Your task to perform on an android device: Search for the best rated 3d printer on Amazon. Image 0: 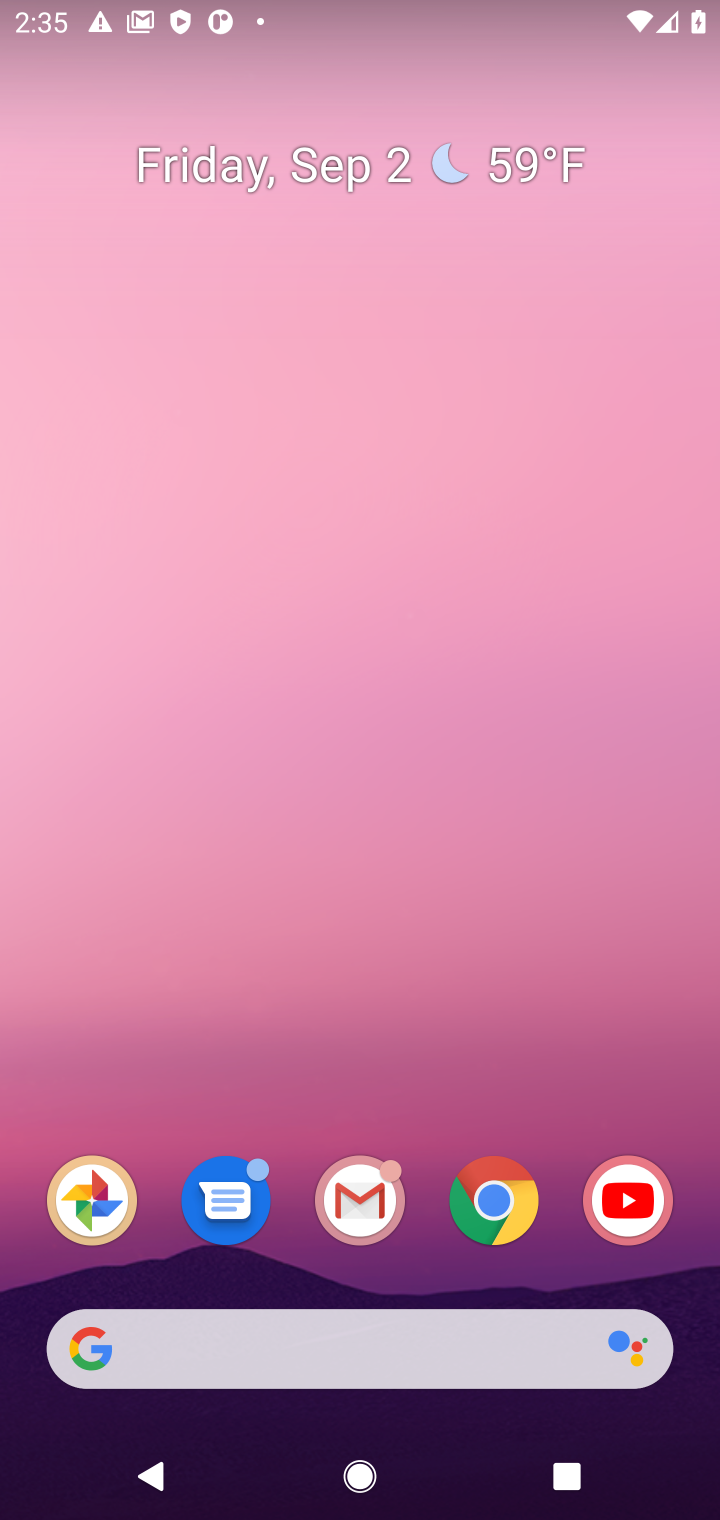
Step 0: click (716, 1274)
Your task to perform on an android device: Search for the best rated 3d printer on Amazon. Image 1: 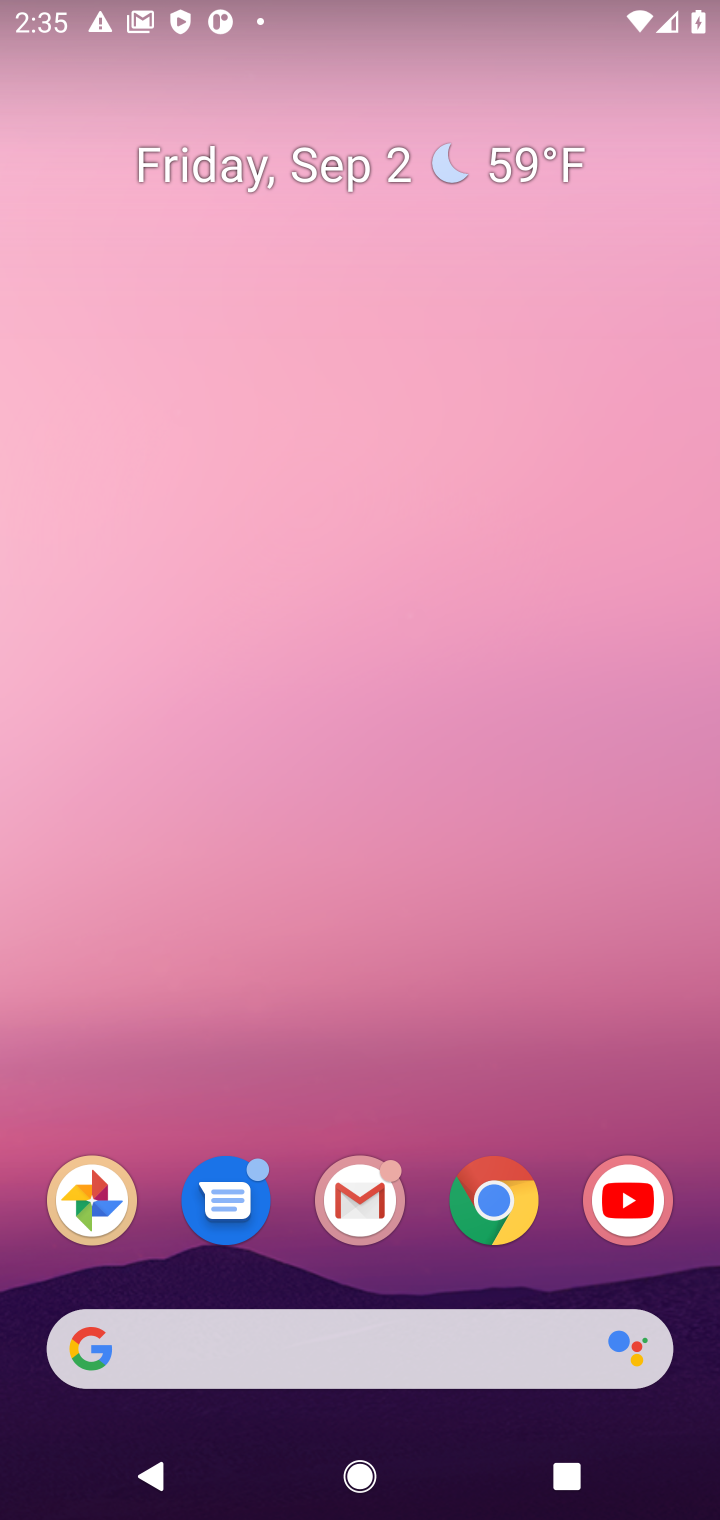
Step 1: click (499, 1191)
Your task to perform on an android device: Search for the best rated 3d printer on Amazon. Image 2: 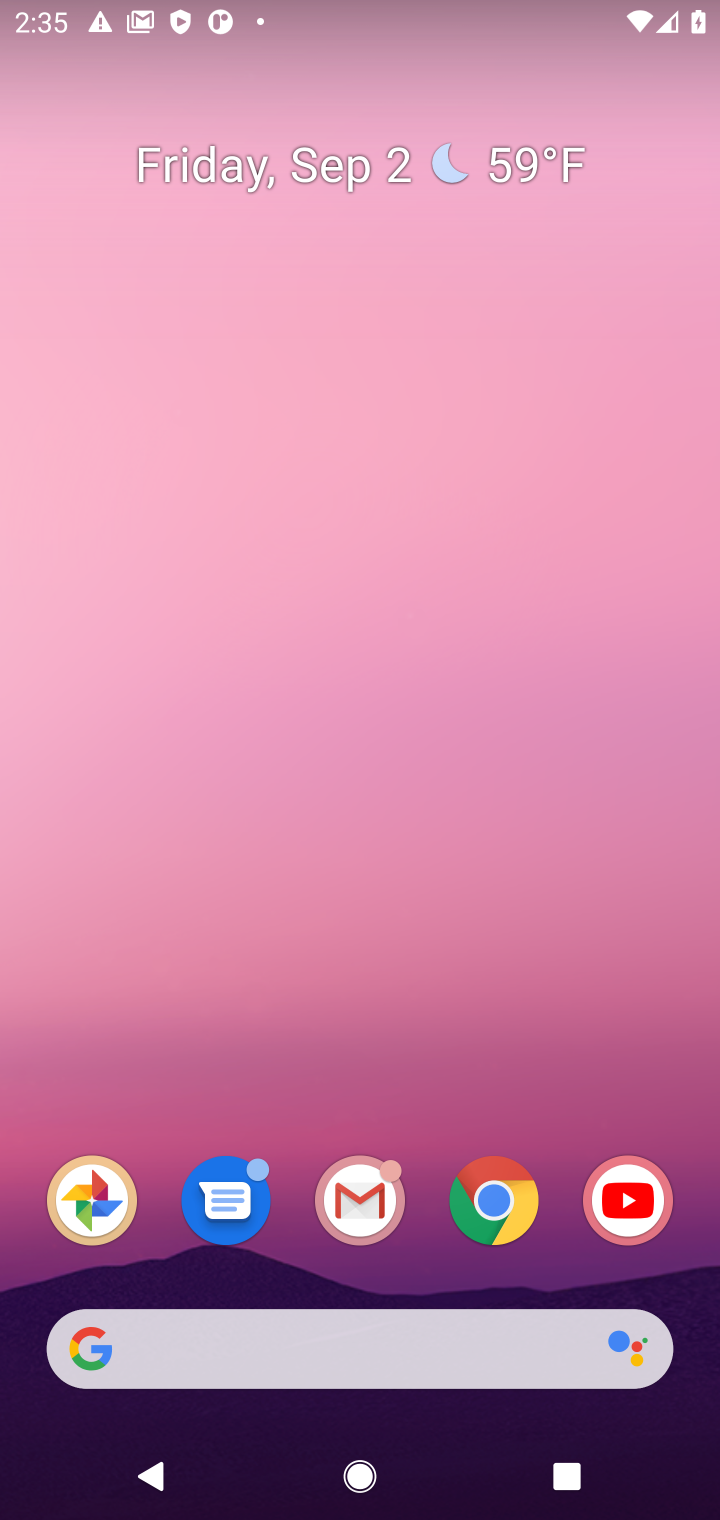
Step 2: click (499, 1193)
Your task to perform on an android device: Search for the best rated 3d printer on Amazon. Image 3: 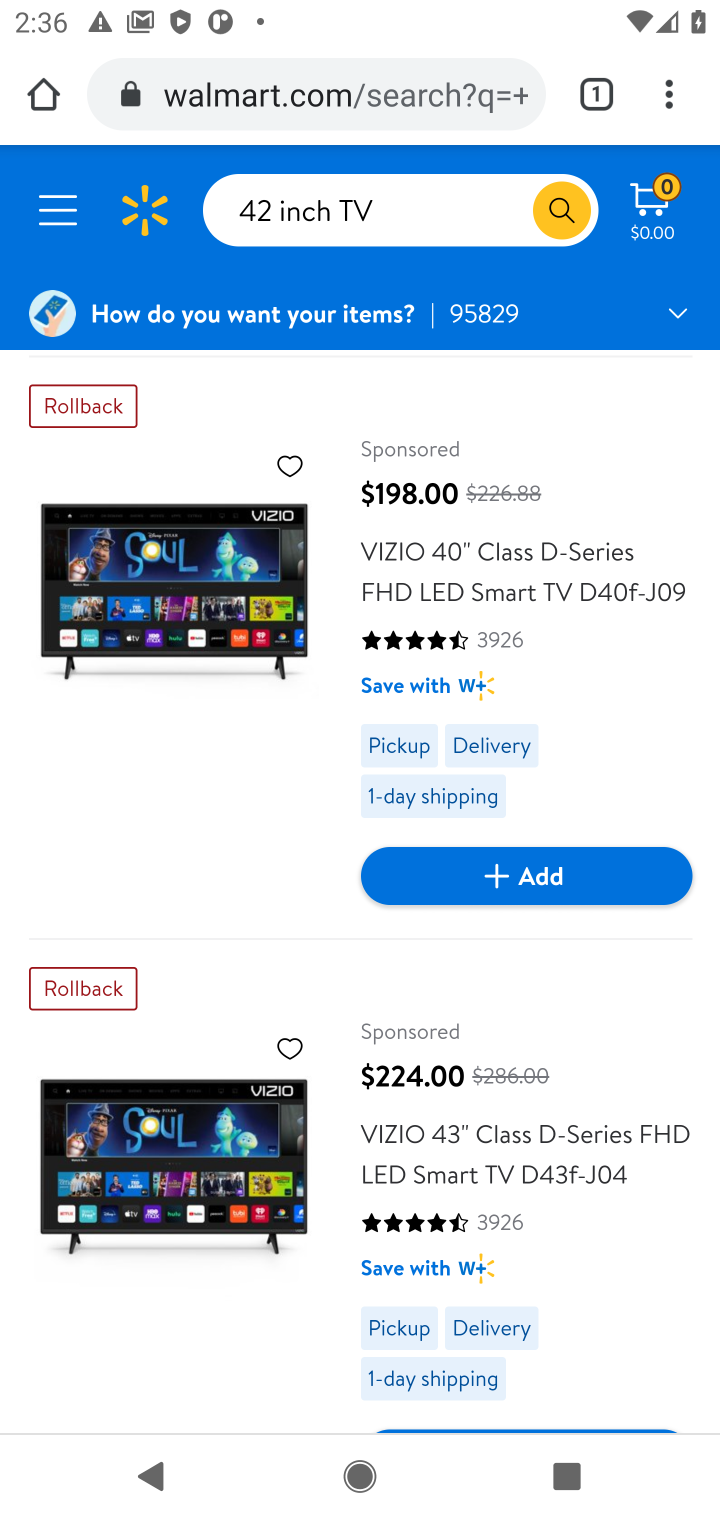
Step 3: click (293, 75)
Your task to perform on an android device: Search for the best rated 3d printer on Amazon. Image 4: 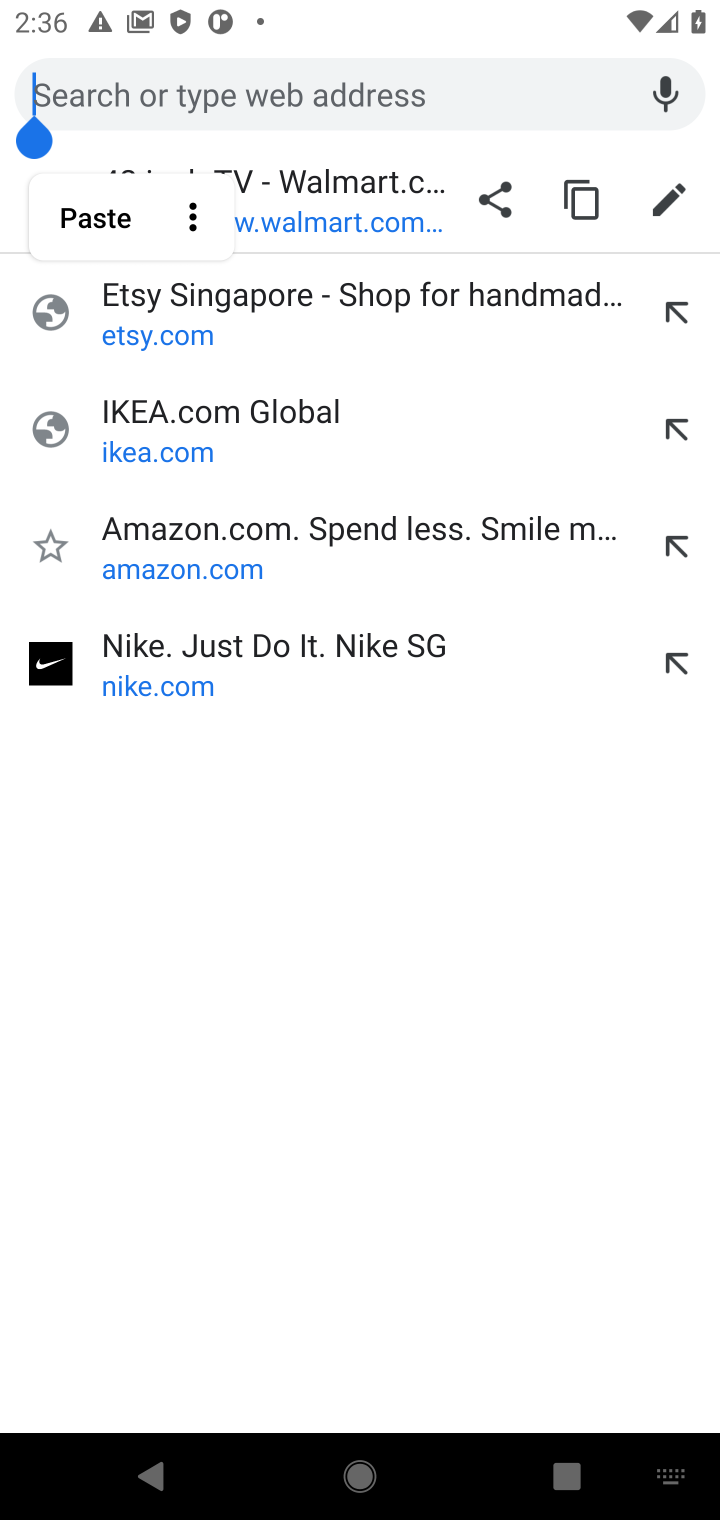
Step 4: click (364, 87)
Your task to perform on an android device: Search for the best rated 3d printer on Amazon. Image 5: 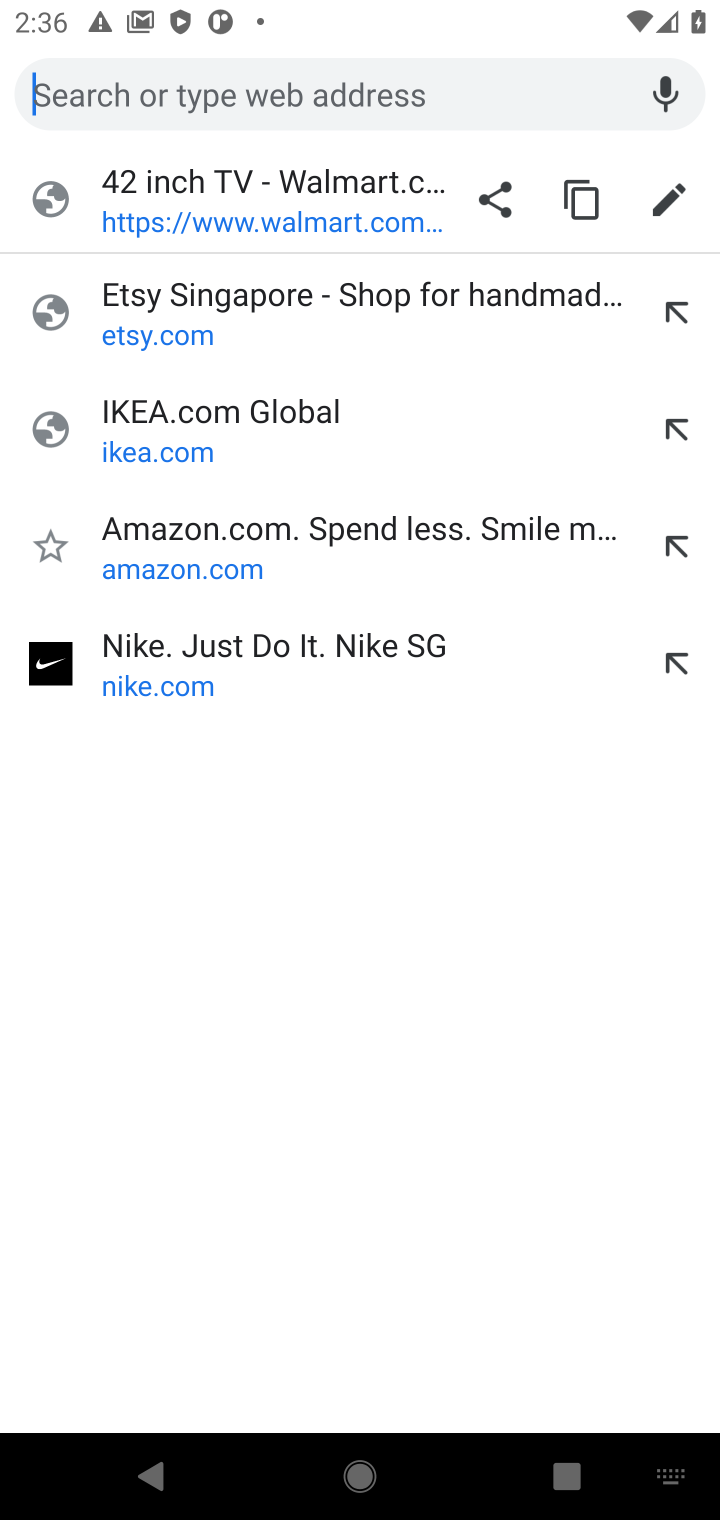
Step 5: type "Amazon"
Your task to perform on an android device: Search for the best rated 3d printer on Amazon. Image 6: 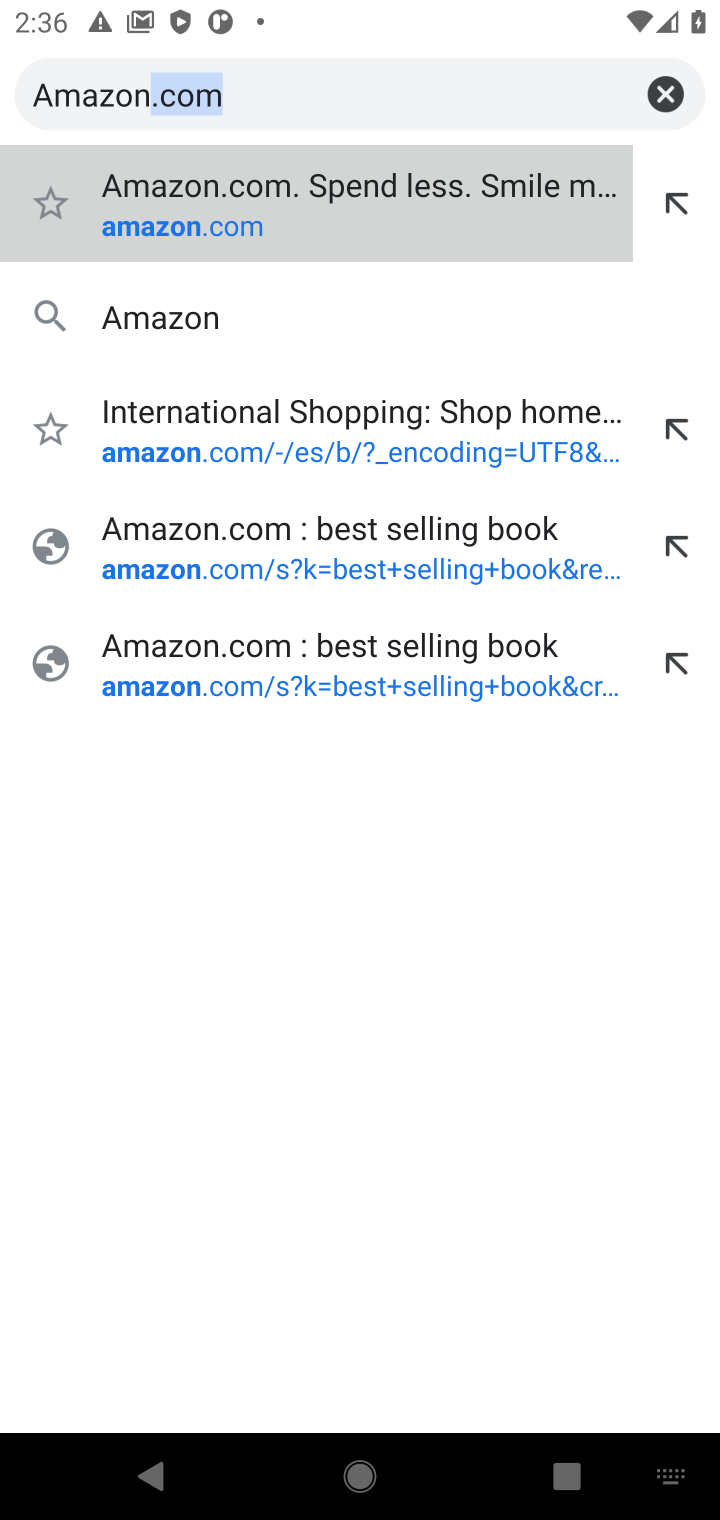
Step 6: press enter
Your task to perform on an android device: Search for the best rated 3d printer on Amazon. Image 7: 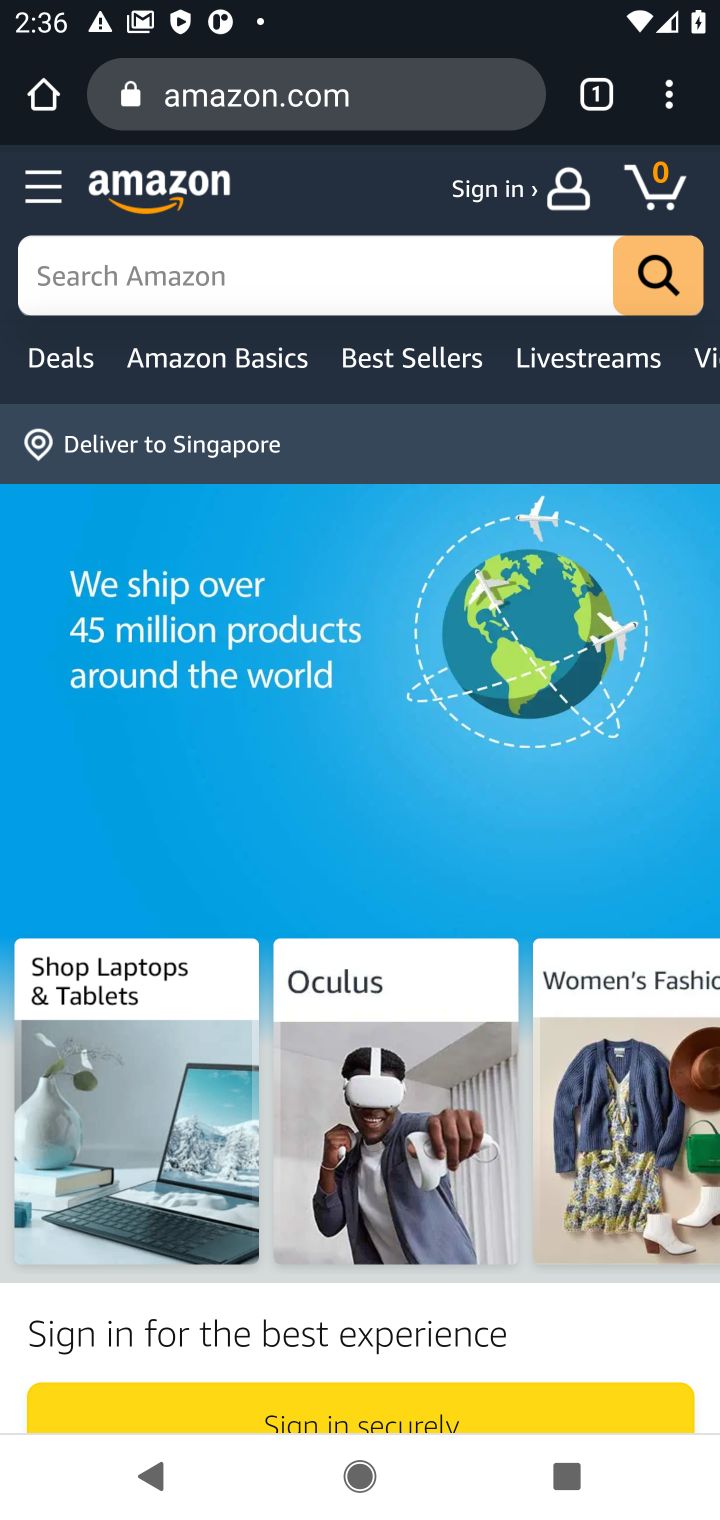
Step 7: click (361, 282)
Your task to perform on an android device: Search for the best rated 3d printer on Amazon. Image 8: 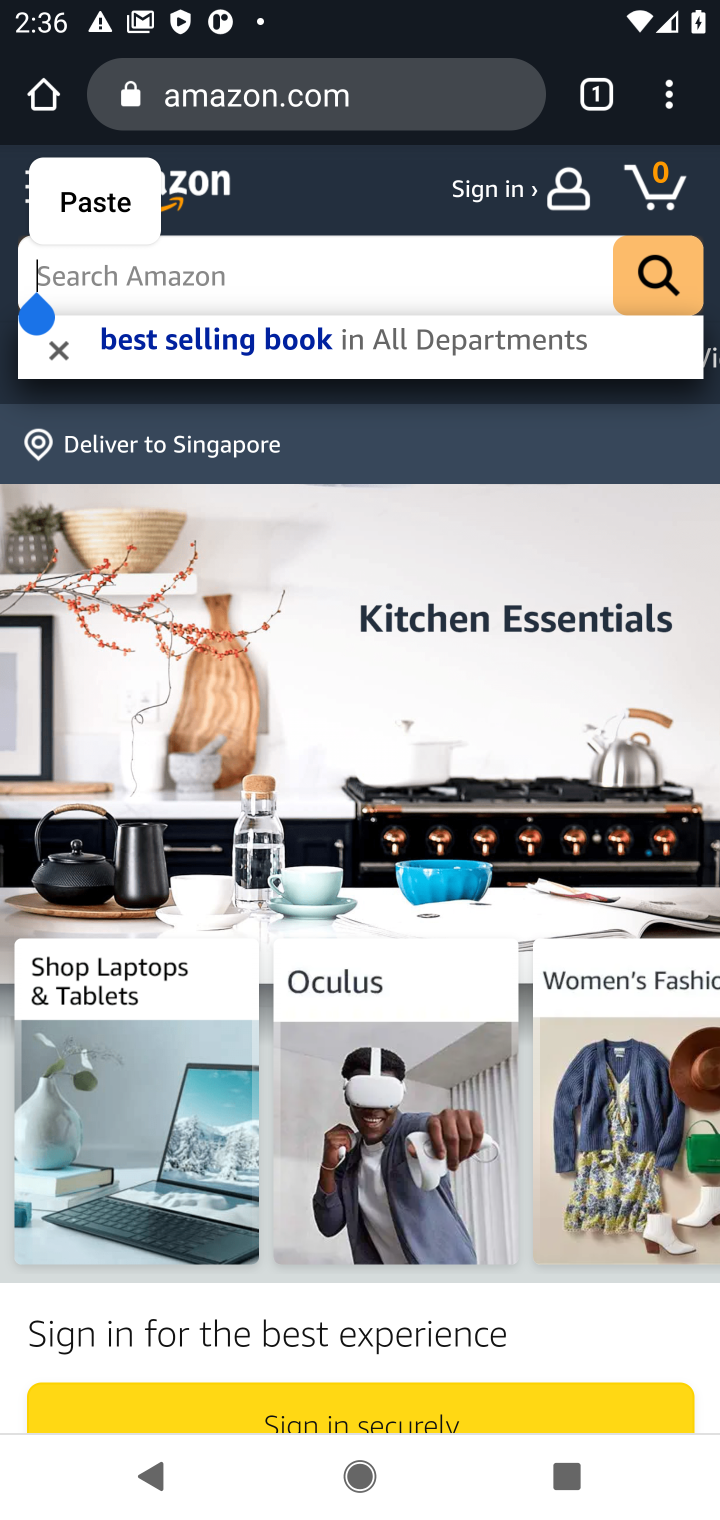
Step 8: click (361, 280)
Your task to perform on an android device: Search for the best rated 3d printer on Amazon. Image 9: 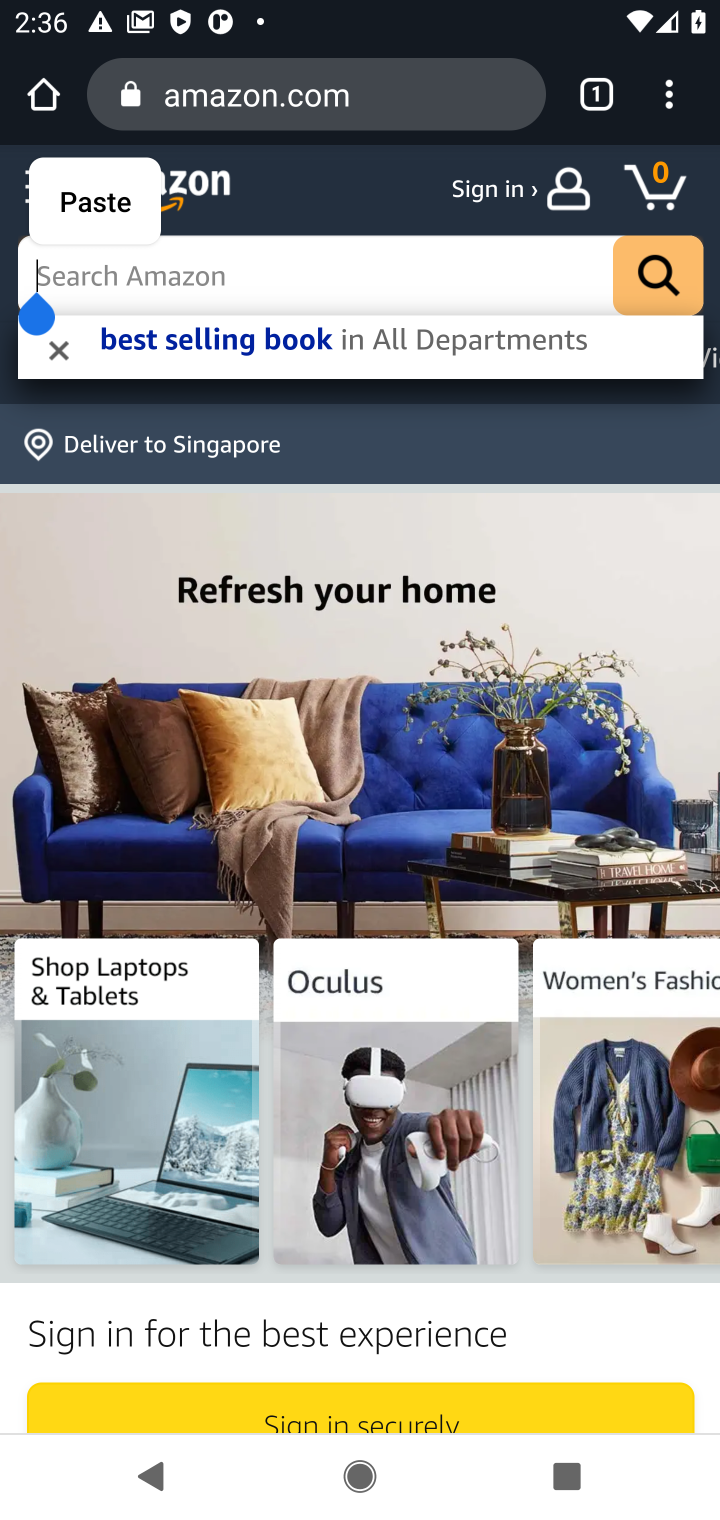
Step 9: press enter
Your task to perform on an android device: Search for the best rated 3d printer on Amazon. Image 10: 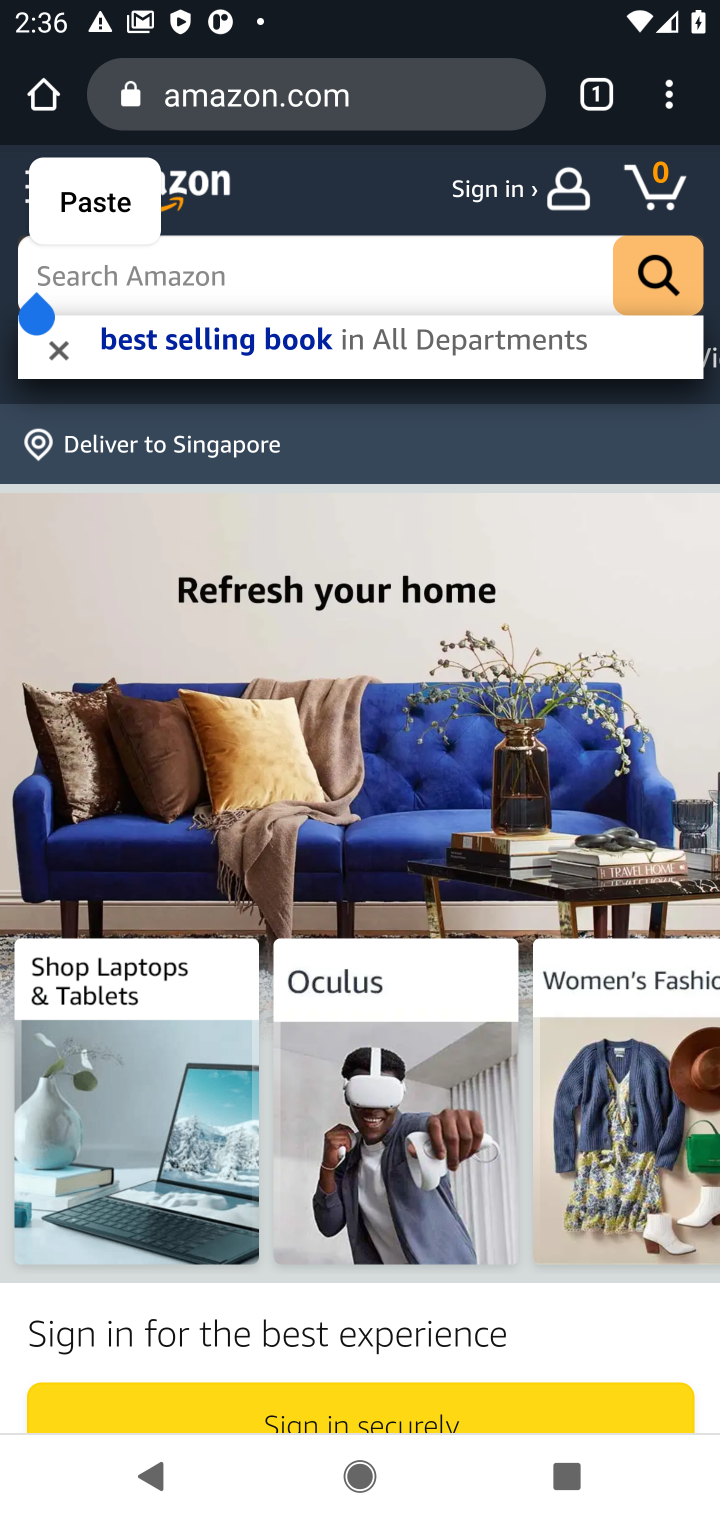
Step 10: type "3d printer"
Your task to perform on an android device: Search for the best rated 3d printer on Amazon. Image 11: 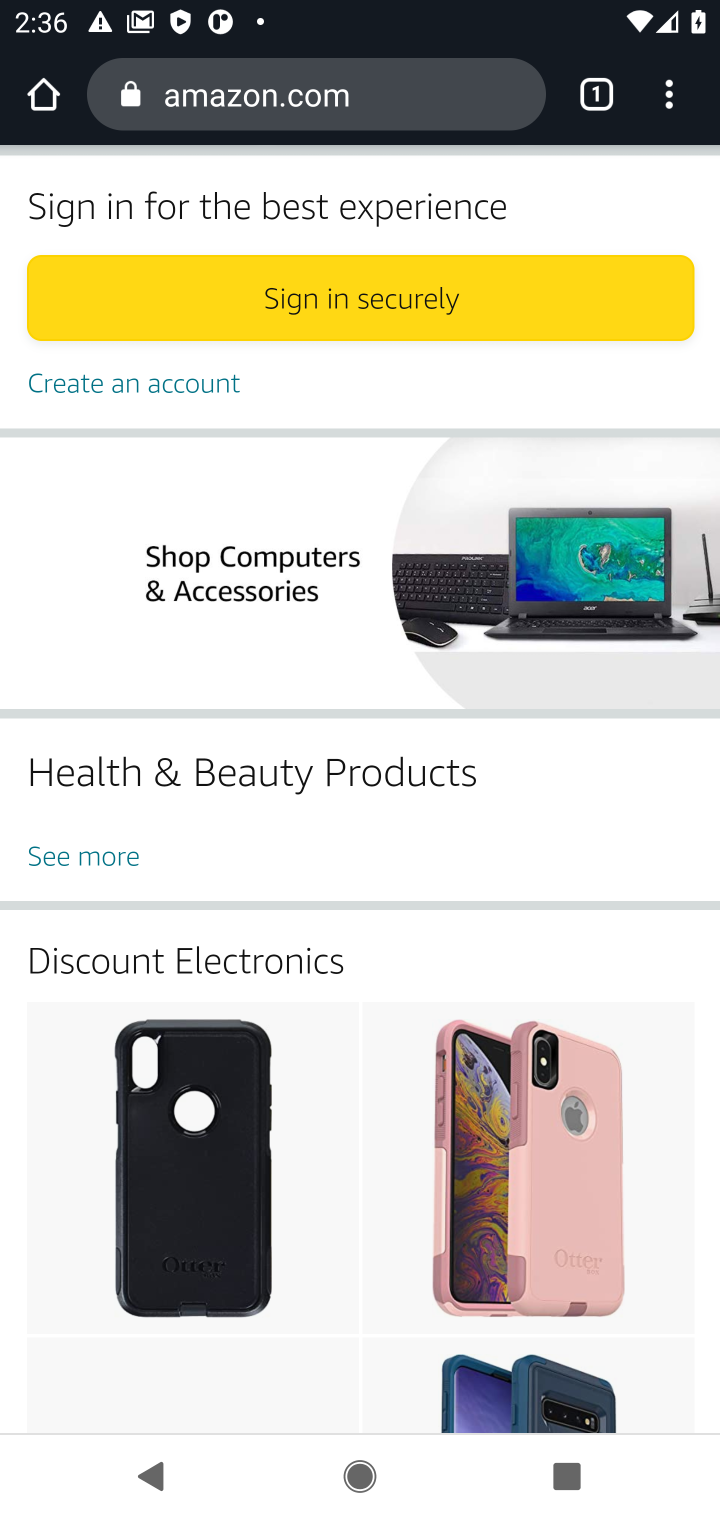
Step 11: drag from (505, 814) to (701, 469)
Your task to perform on an android device: Search for the best rated 3d printer on Amazon. Image 12: 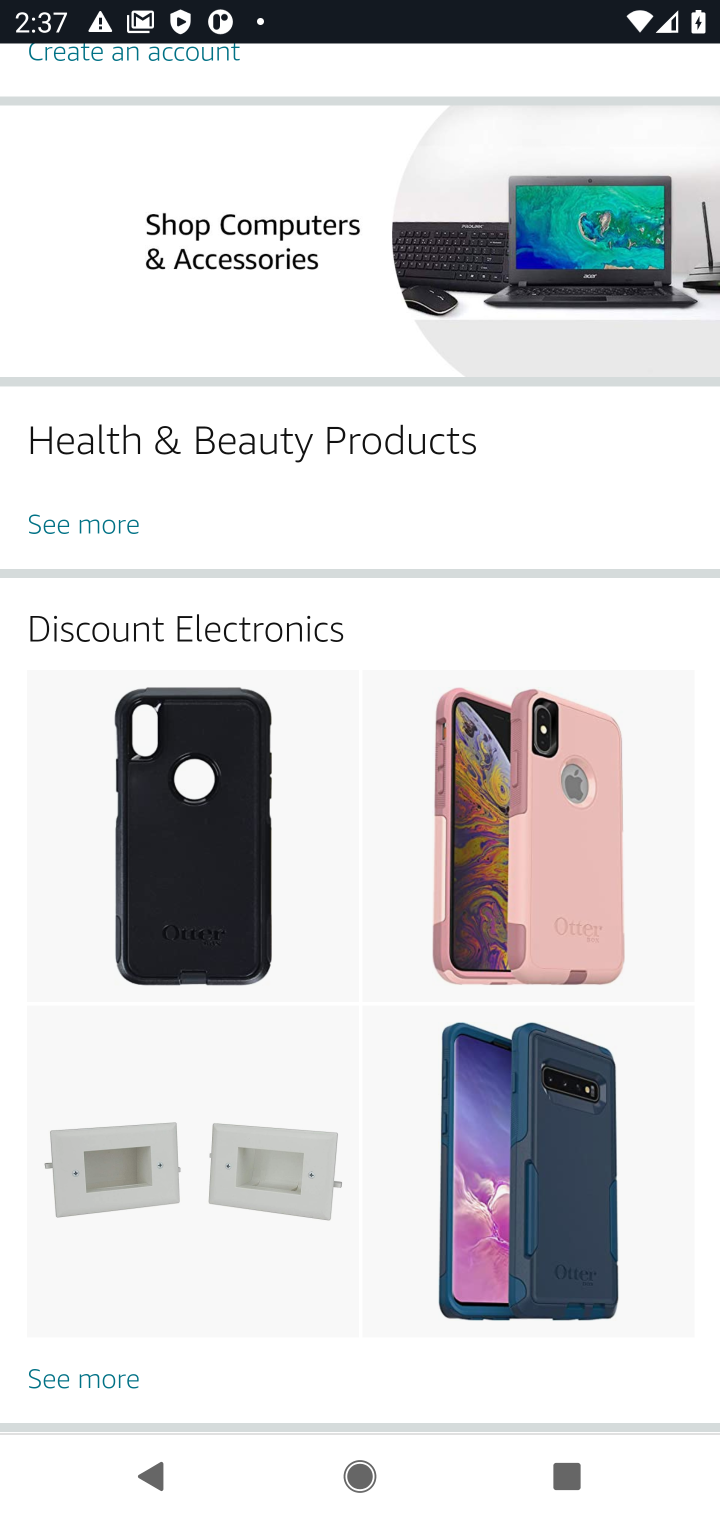
Step 12: drag from (260, 1118) to (107, 1334)
Your task to perform on an android device: Search for the best rated 3d printer on Amazon. Image 13: 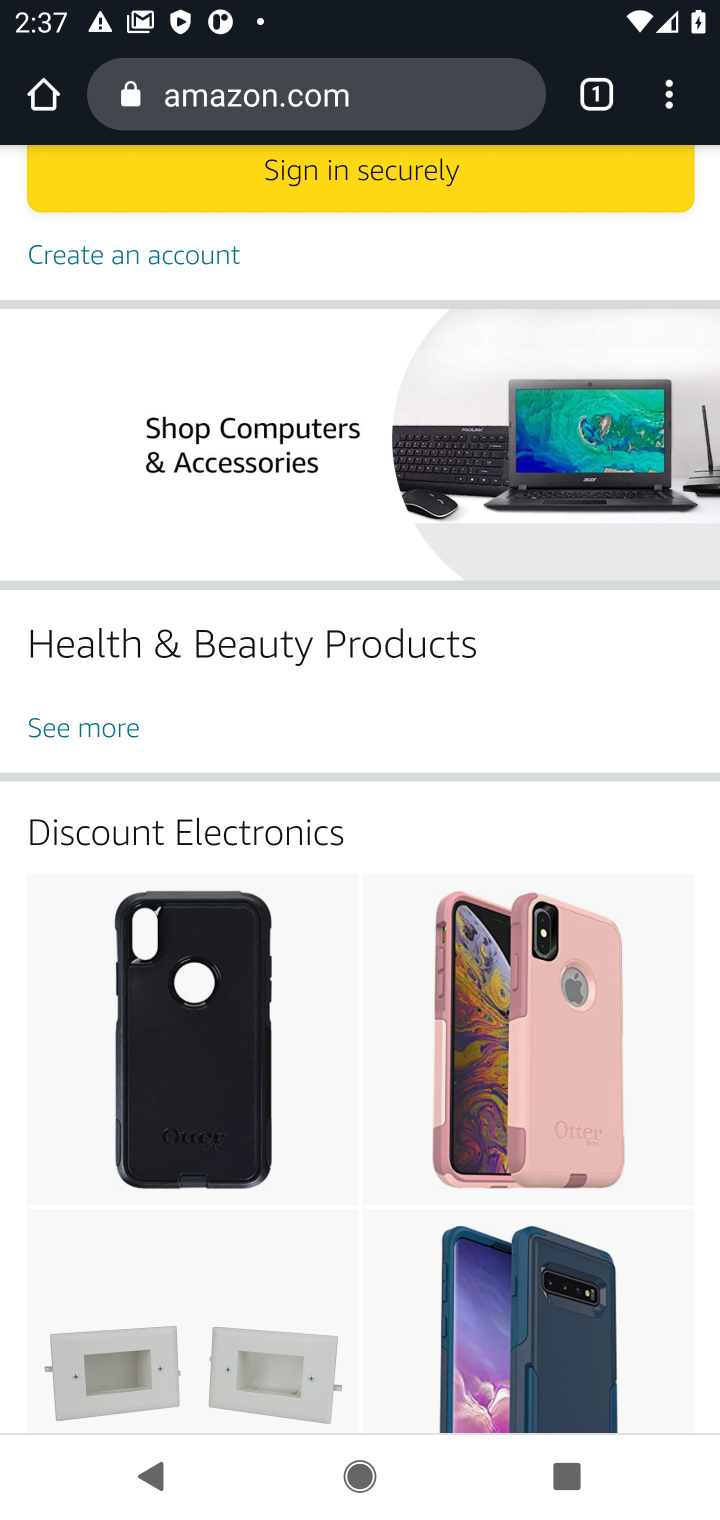
Step 13: drag from (333, 332) to (192, 1091)
Your task to perform on an android device: Search for the best rated 3d printer on Amazon. Image 14: 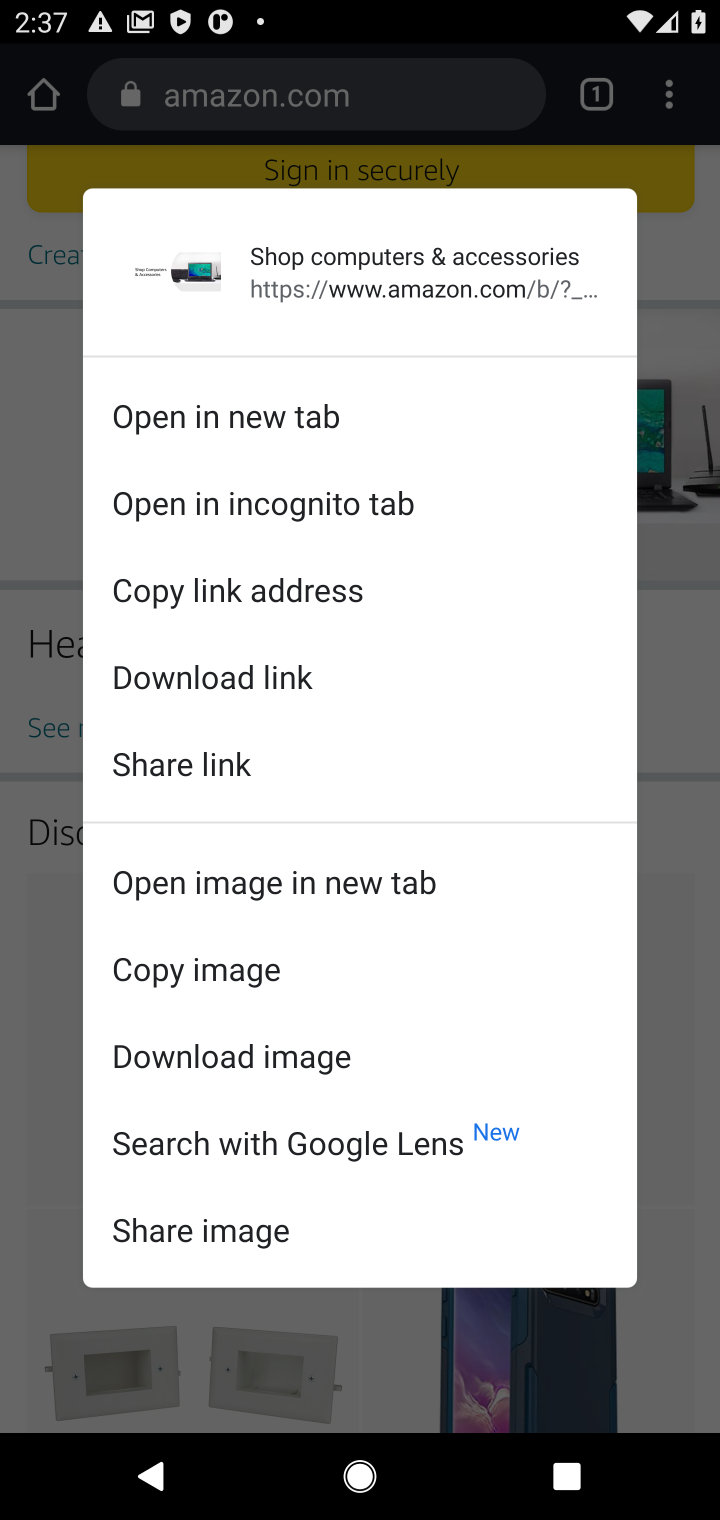
Step 14: click (684, 314)
Your task to perform on an android device: Search for the best rated 3d printer on Amazon. Image 15: 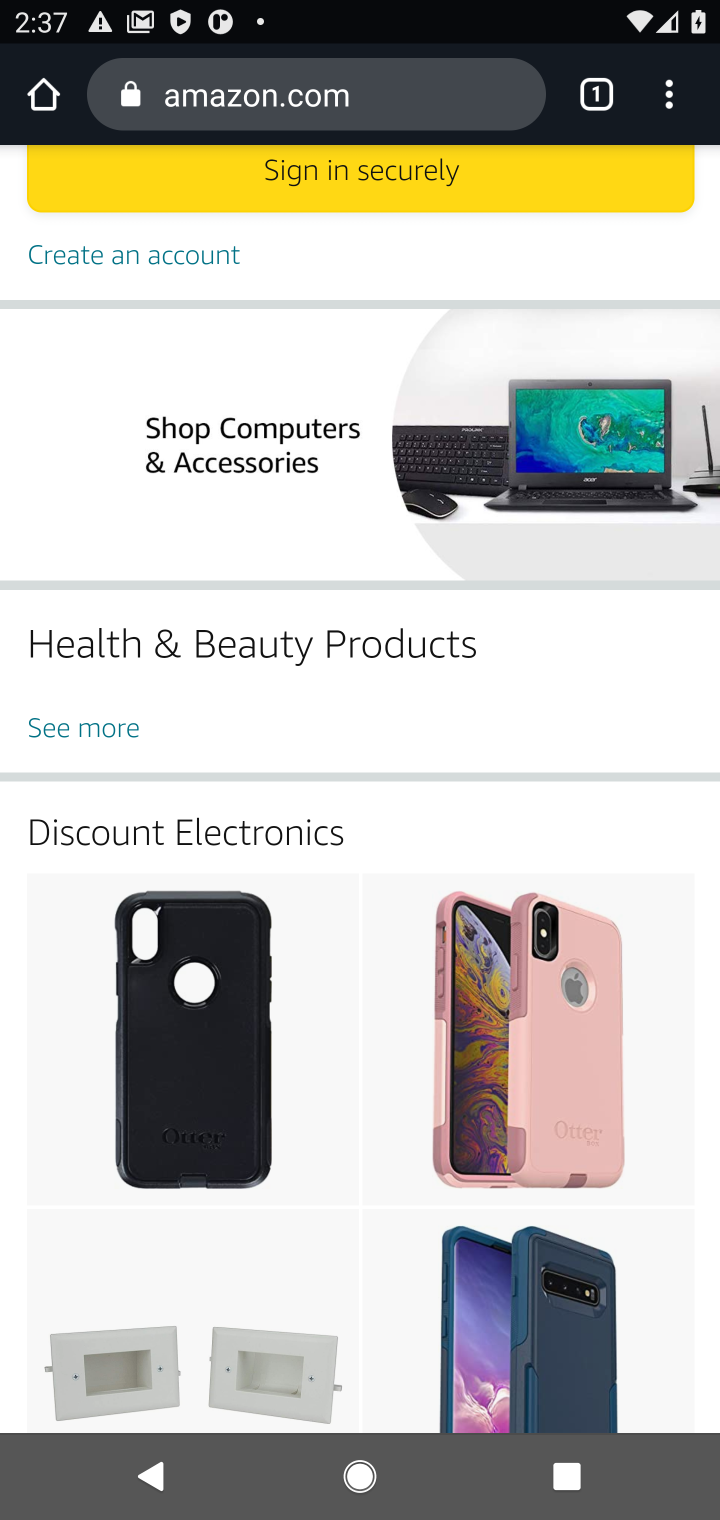
Step 15: drag from (628, 253) to (525, 1051)
Your task to perform on an android device: Search for the best rated 3d printer on Amazon. Image 16: 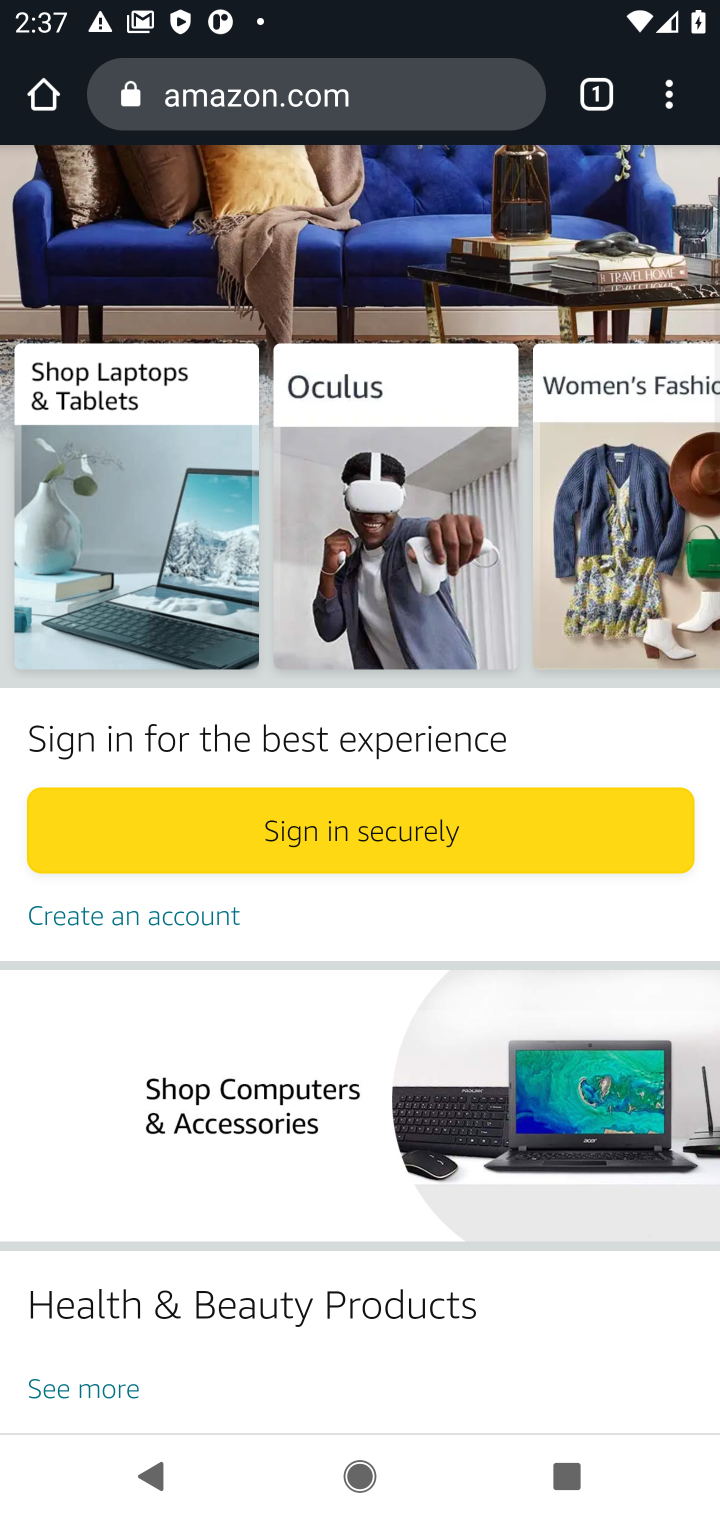
Step 16: drag from (396, 447) to (295, 1202)
Your task to perform on an android device: Search for the best rated 3d printer on Amazon. Image 17: 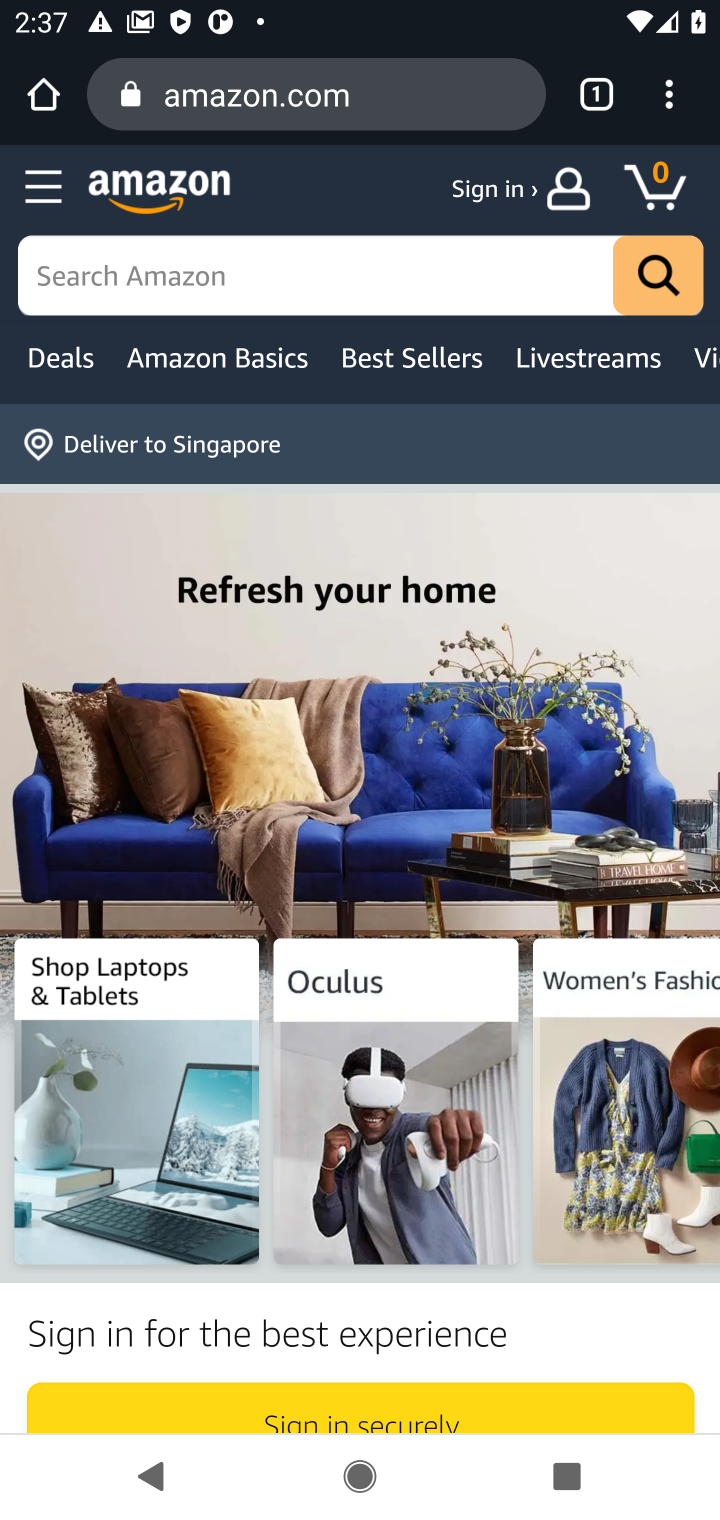
Step 17: click (264, 274)
Your task to perform on an android device: Search for the best rated 3d printer on Amazon. Image 18: 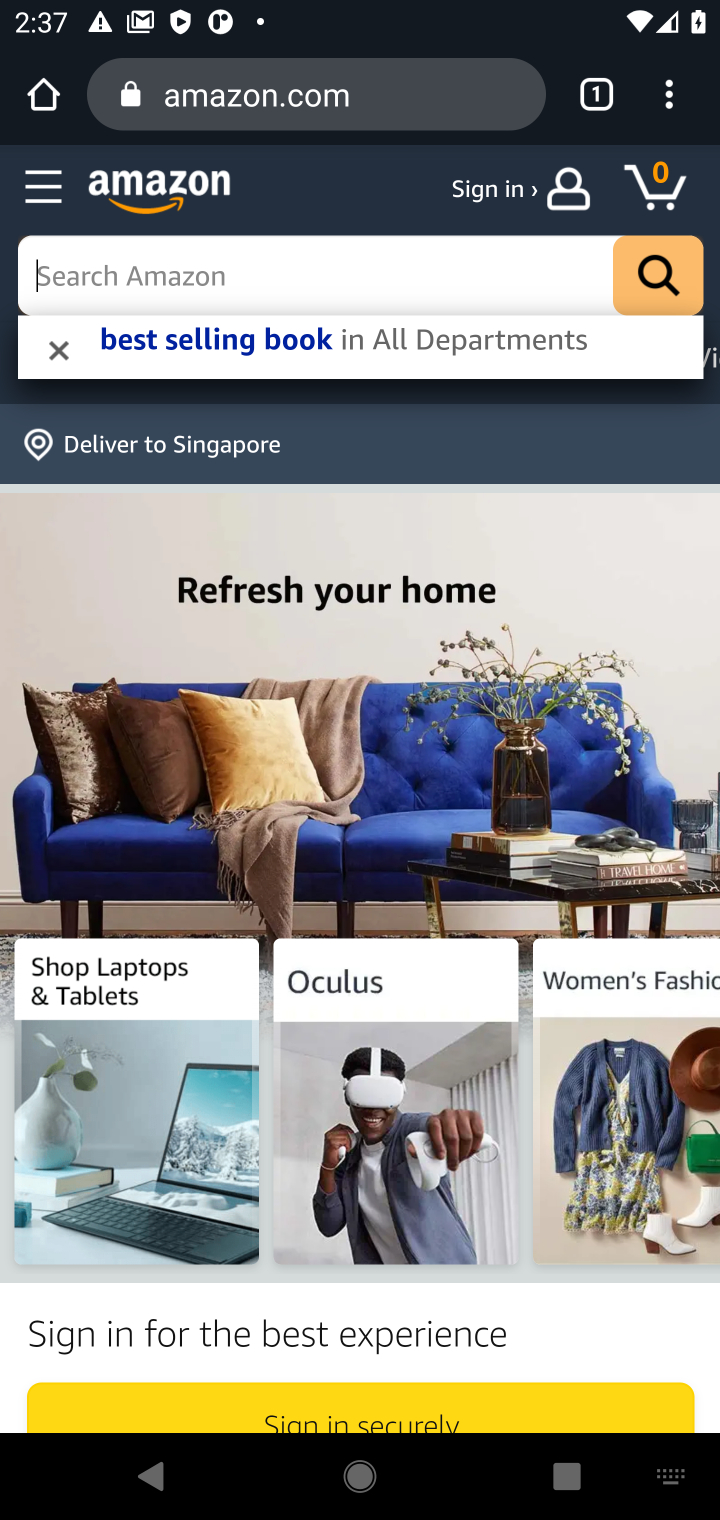
Step 18: click (509, 270)
Your task to perform on an android device: Search for the best rated 3d printer on Amazon. Image 19: 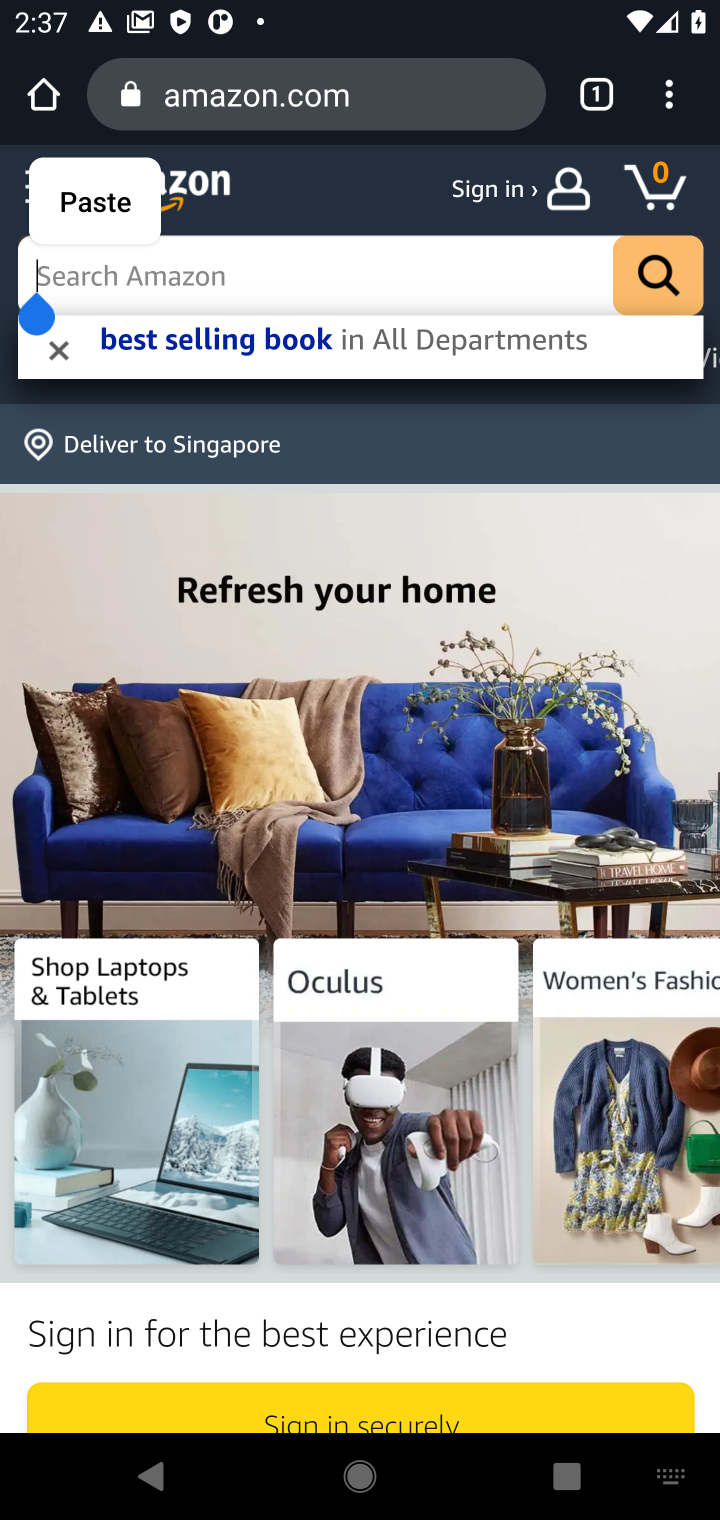
Step 19: type " 3d printer"
Your task to perform on an android device: Search for the best rated 3d printer on Amazon. Image 20: 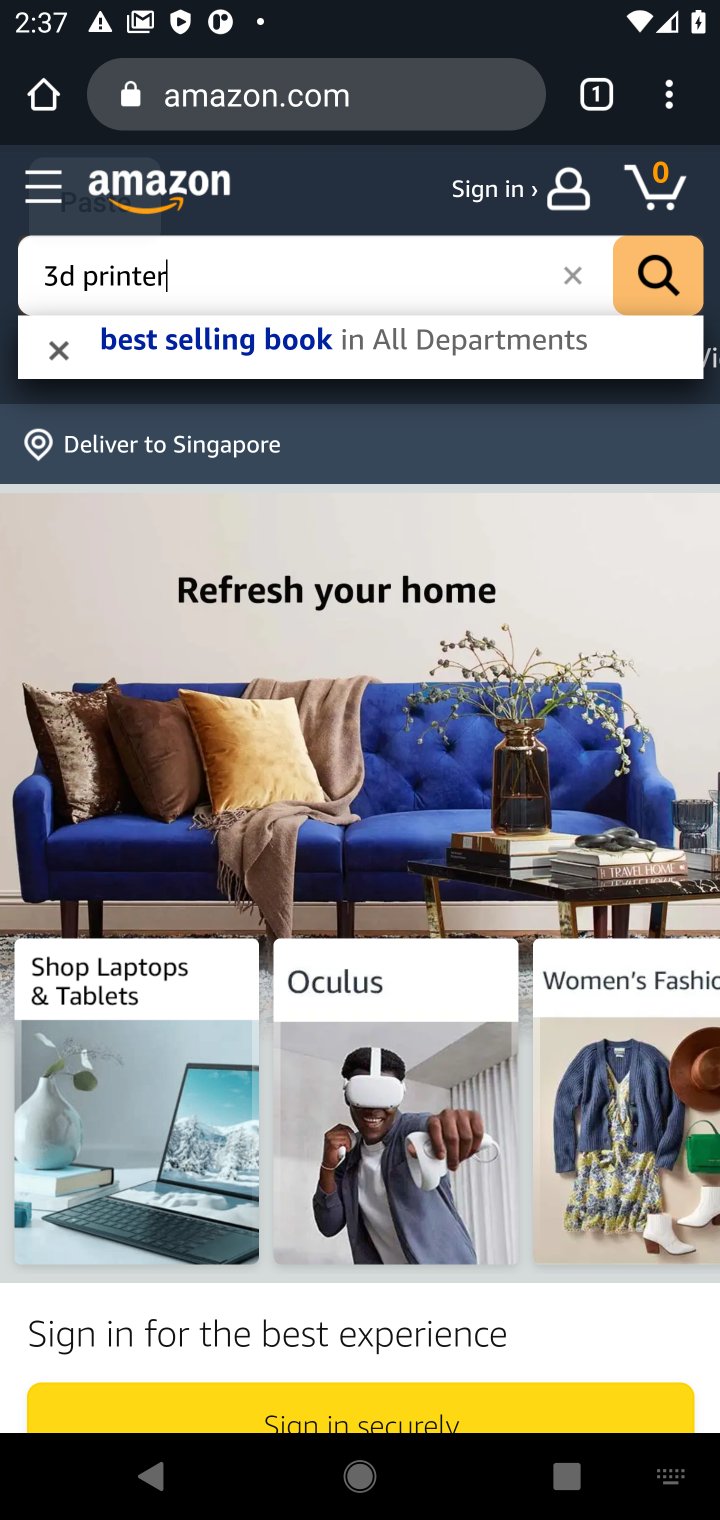
Step 20: press enter
Your task to perform on an android device: Search for the best rated 3d printer on Amazon. Image 21: 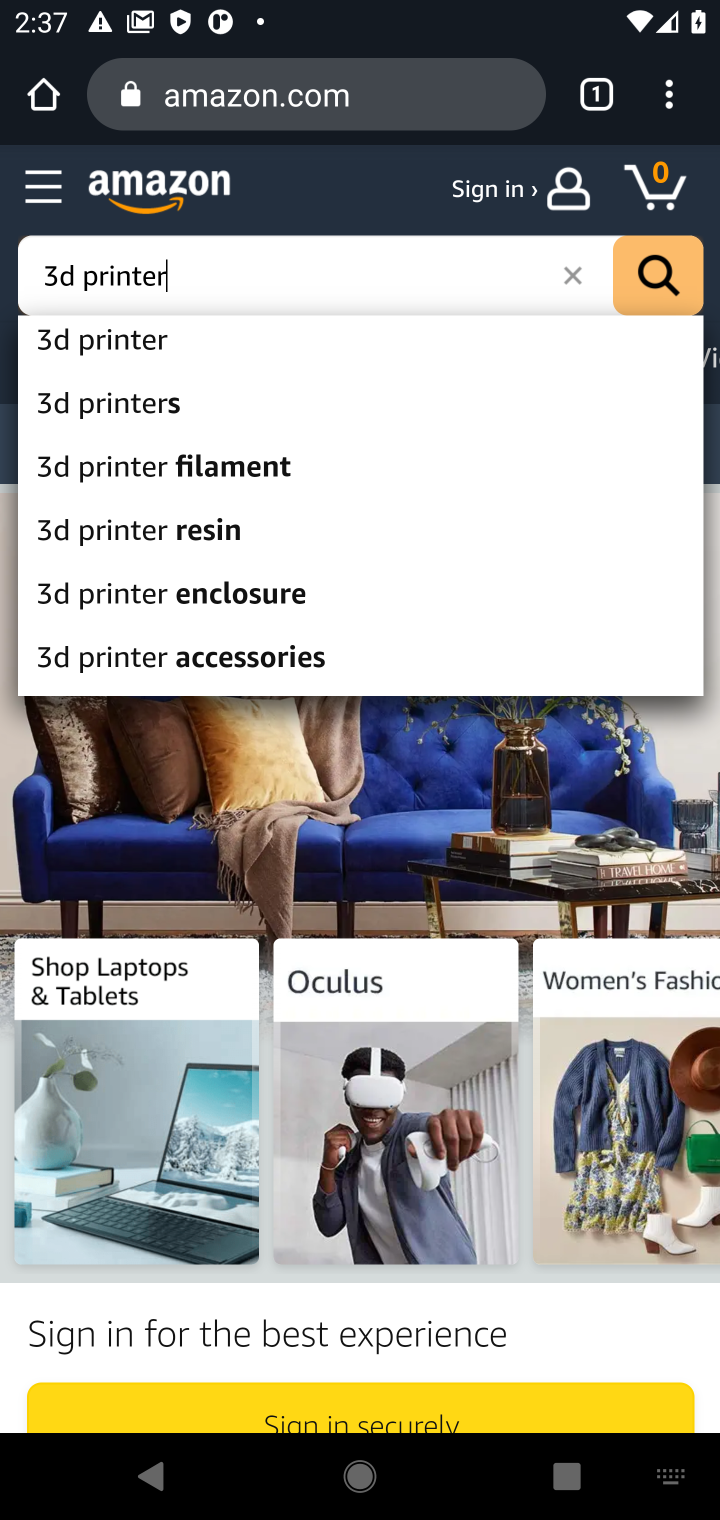
Step 21: click (634, 275)
Your task to perform on an android device: Search for the best rated 3d printer on Amazon. Image 22: 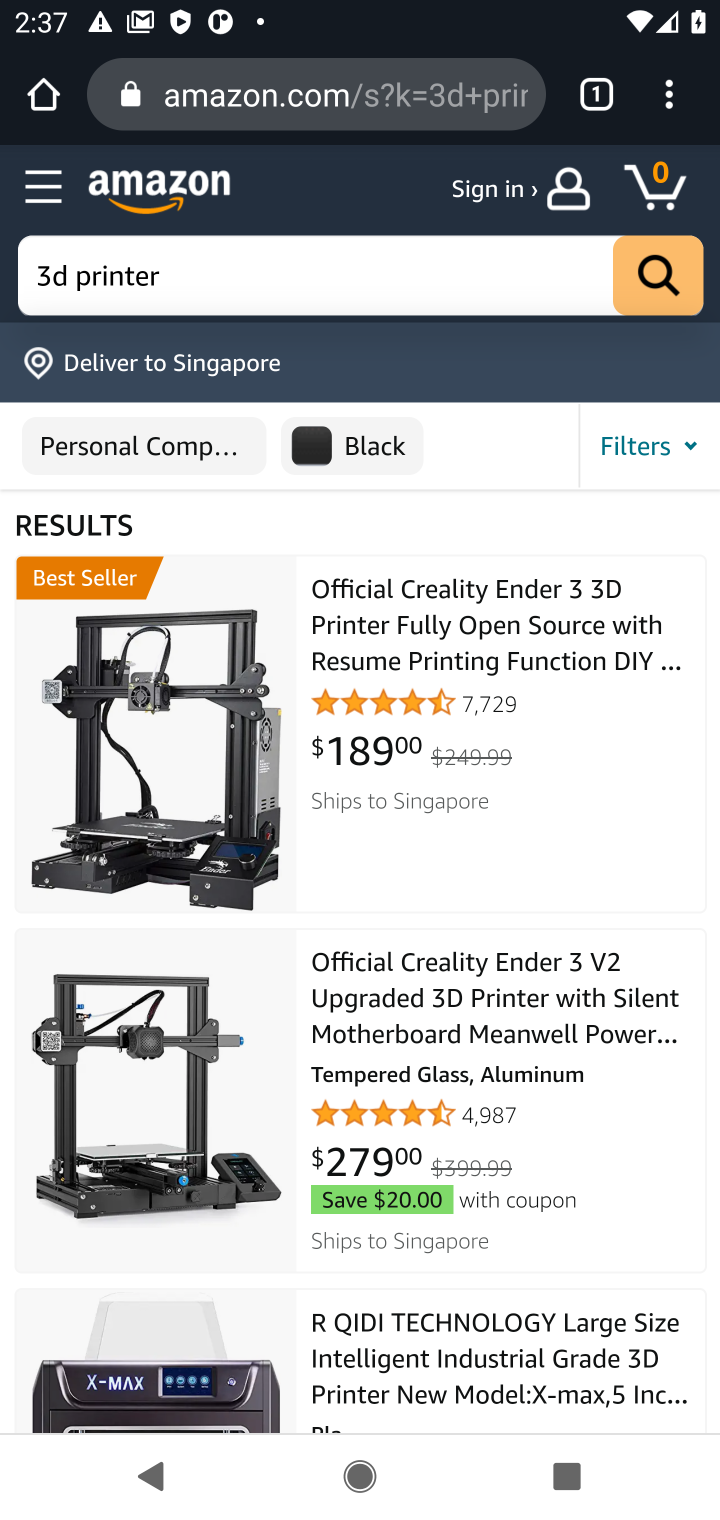
Step 22: task complete